Your task to perform on an android device: Open internet settings Image 0: 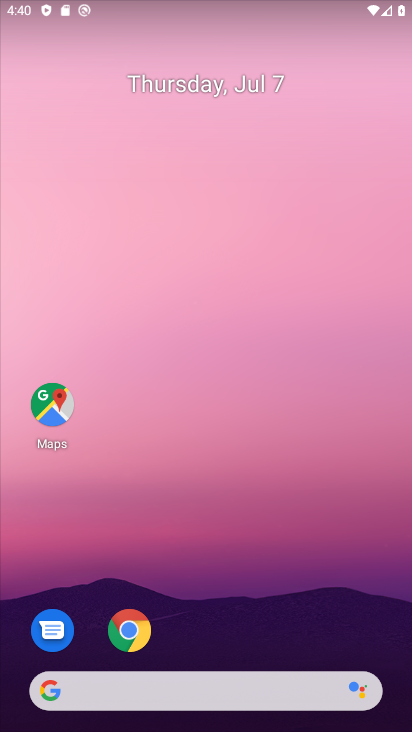
Step 0: drag from (284, 690) to (149, 133)
Your task to perform on an android device: Open internet settings Image 1: 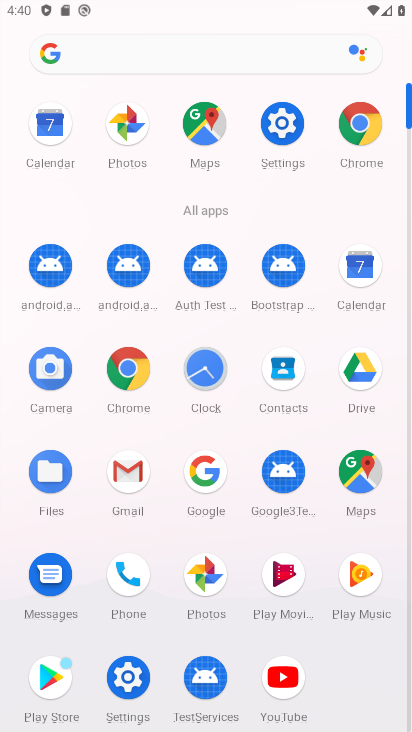
Step 1: click (283, 130)
Your task to perform on an android device: Open internet settings Image 2: 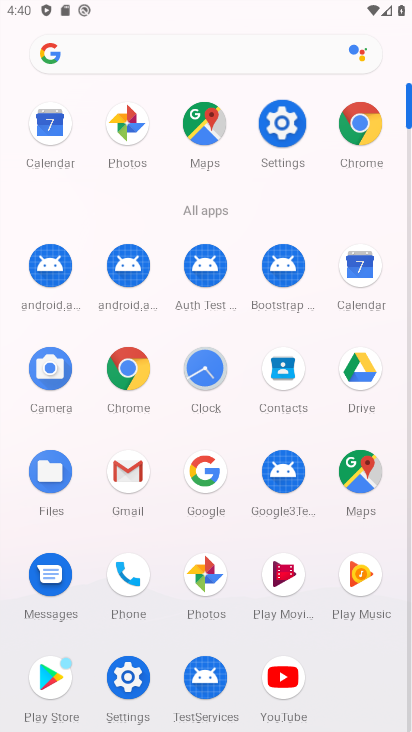
Step 2: click (284, 131)
Your task to perform on an android device: Open internet settings Image 3: 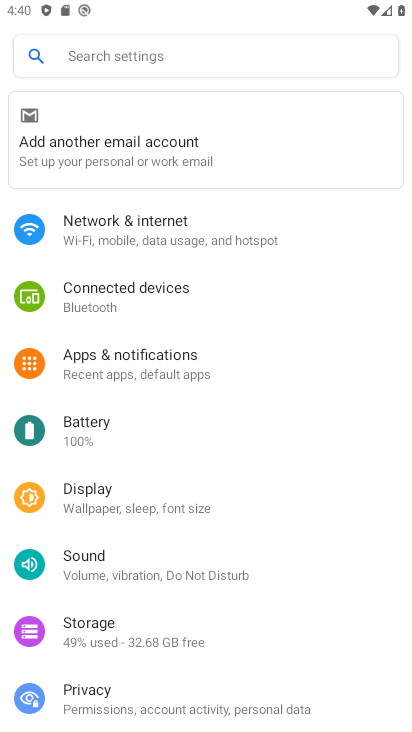
Step 3: click (154, 237)
Your task to perform on an android device: Open internet settings Image 4: 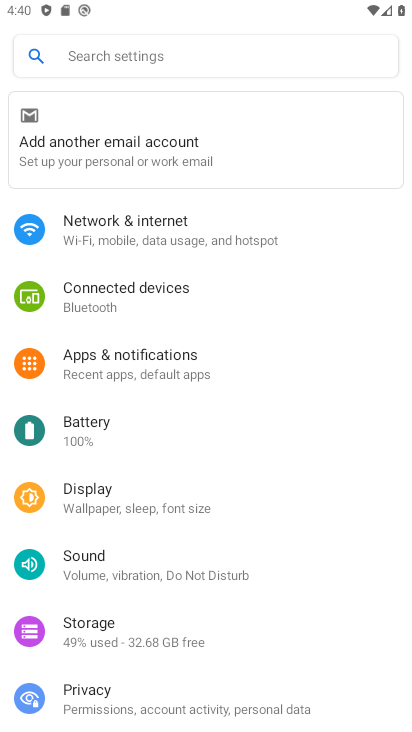
Step 4: click (159, 235)
Your task to perform on an android device: Open internet settings Image 5: 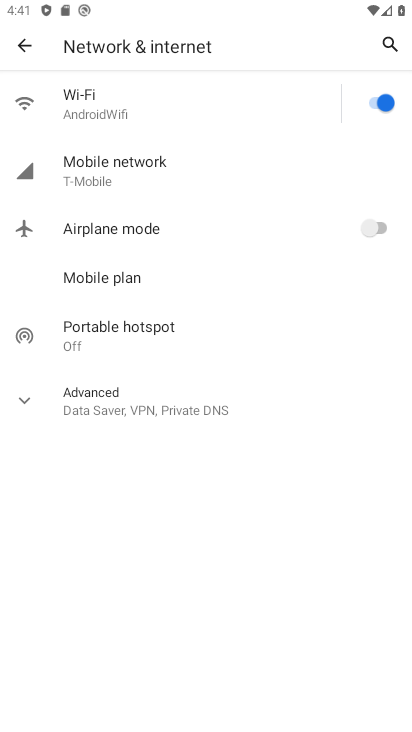
Step 5: press back button
Your task to perform on an android device: Open internet settings Image 6: 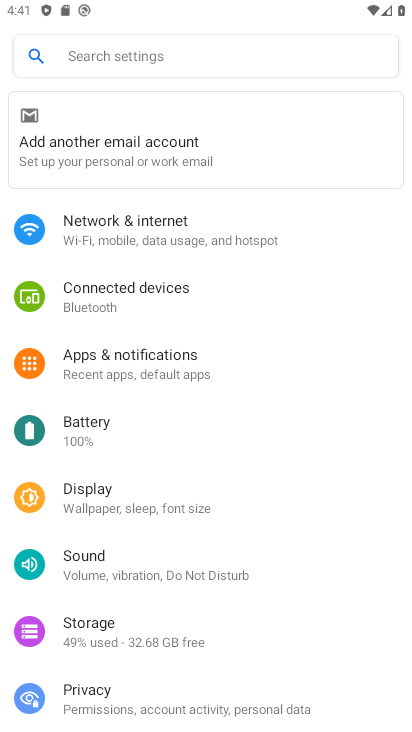
Step 6: click (153, 232)
Your task to perform on an android device: Open internet settings Image 7: 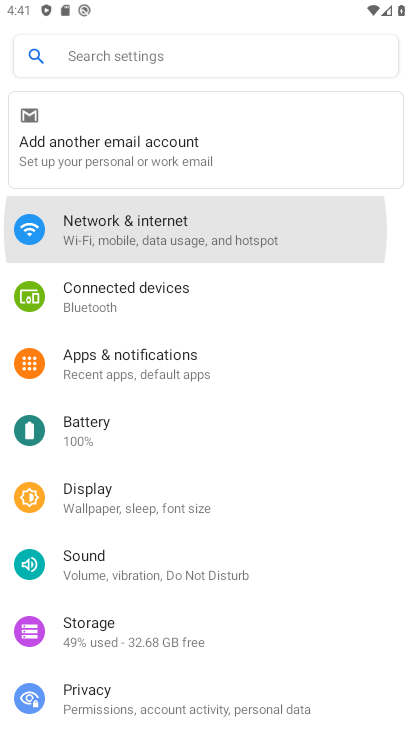
Step 7: click (153, 231)
Your task to perform on an android device: Open internet settings Image 8: 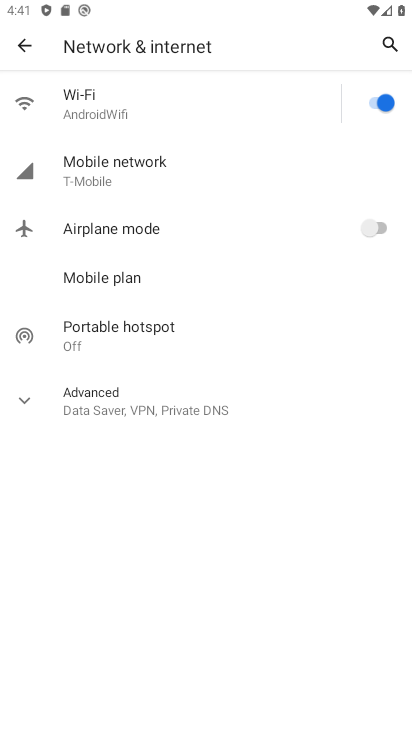
Step 8: click (93, 103)
Your task to perform on an android device: Open internet settings Image 9: 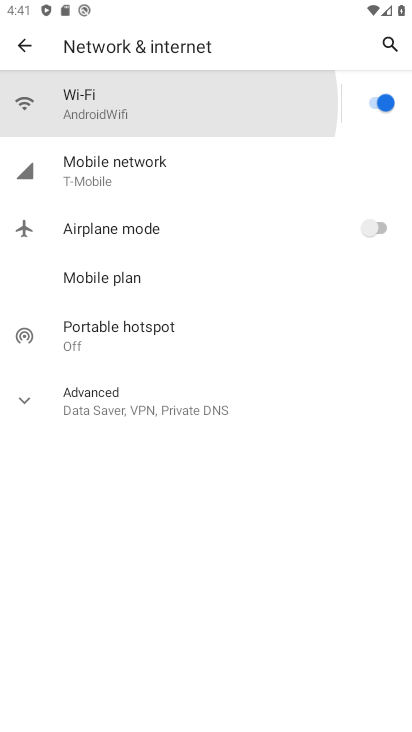
Step 9: click (105, 101)
Your task to perform on an android device: Open internet settings Image 10: 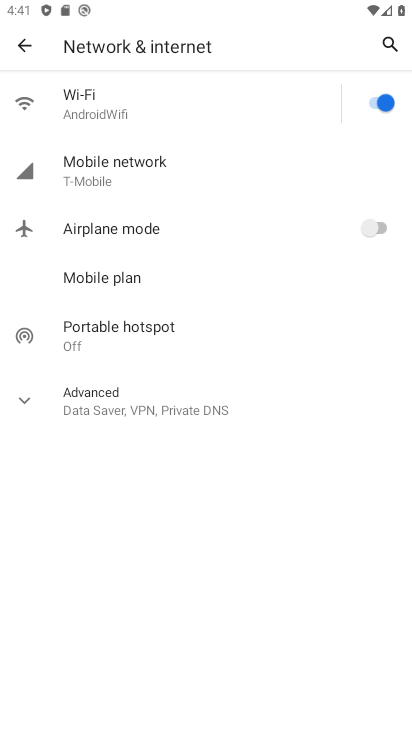
Step 10: click (110, 102)
Your task to perform on an android device: Open internet settings Image 11: 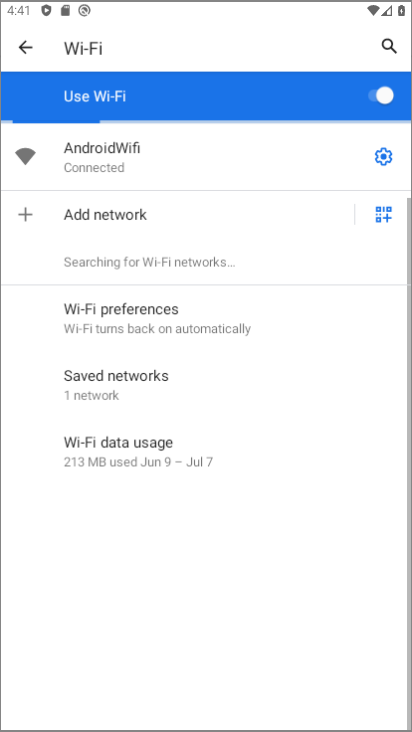
Step 11: click (110, 102)
Your task to perform on an android device: Open internet settings Image 12: 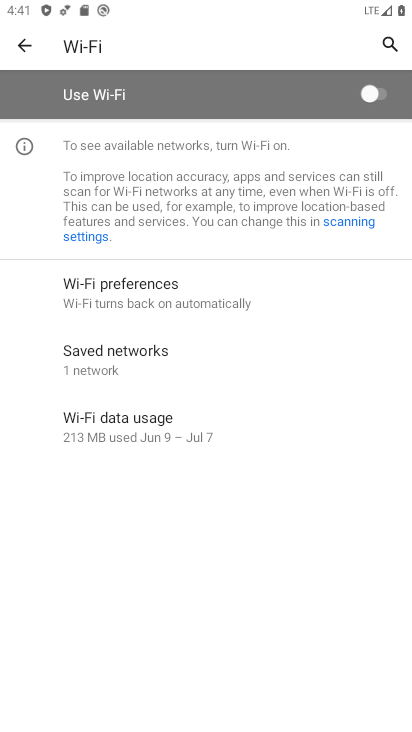
Step 12: click (361, 93)
Your task to perform on an android device: Open internet settings Image 13: 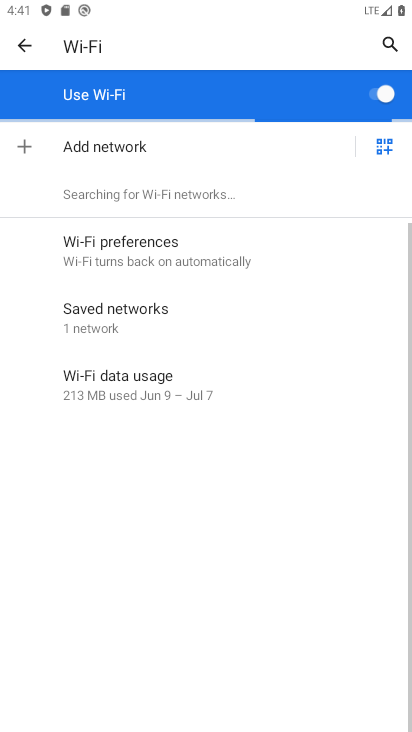
Step 13: task complete